Your task to perform on an android device: toggle show notifications on the lock screen Image 0: 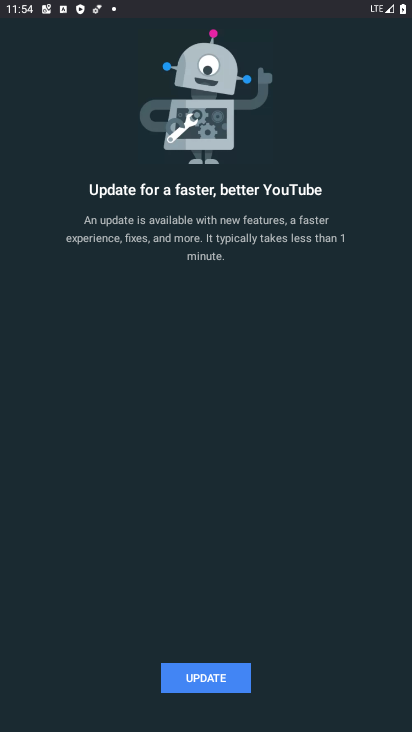
Step 0: press back button
Your task to perform on an android device: toggle show notifications on the lock screen Image 1: 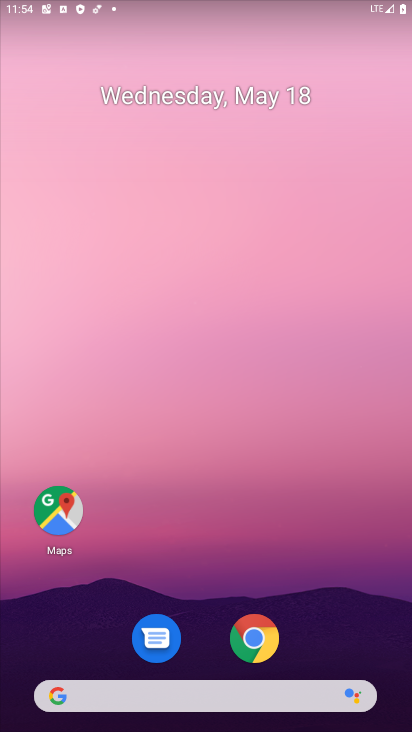
Step 1: drag from (368, 628) to (301, 55)
Your task to perform on an android device: toggle show notifications on the lock screen Image 2: 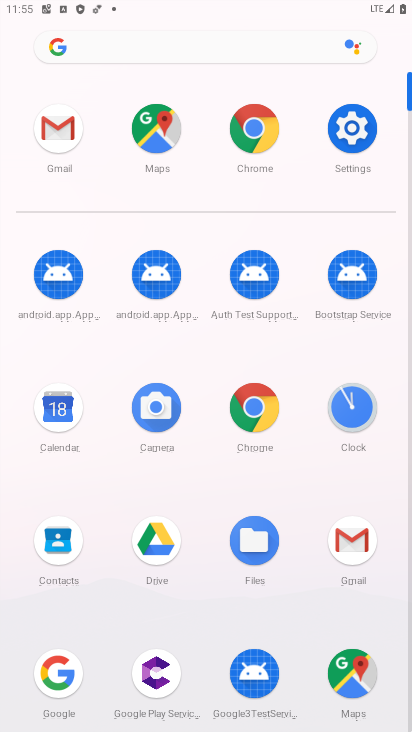
Step 2: click (357, 155)
Your task to perform on an android device: toggle show notifications on the lock screen Image 3: 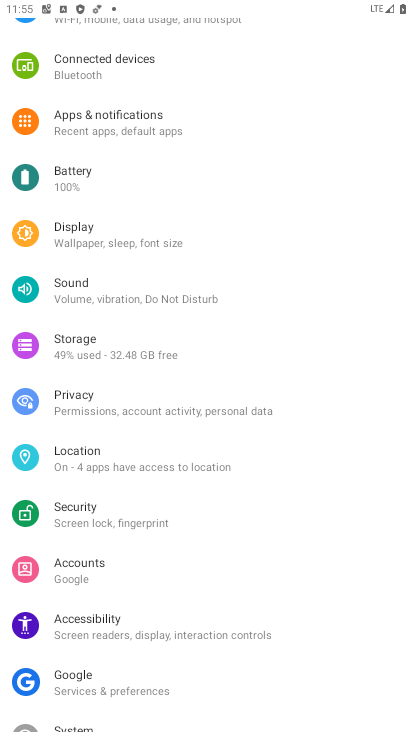
Step 3: click (148, 104)
Your task to perform on an android device: toggle show notifications on the lock screen Image 4: 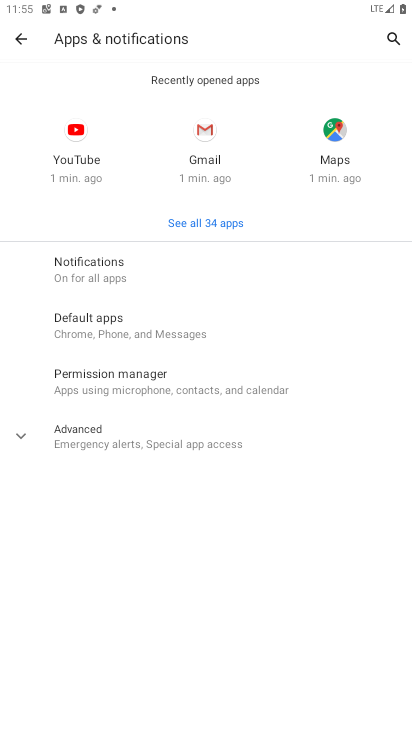
Step 4: click (109, 285)
Your task to perform on an android device: toggle show notifications on the lock screen Image 5: 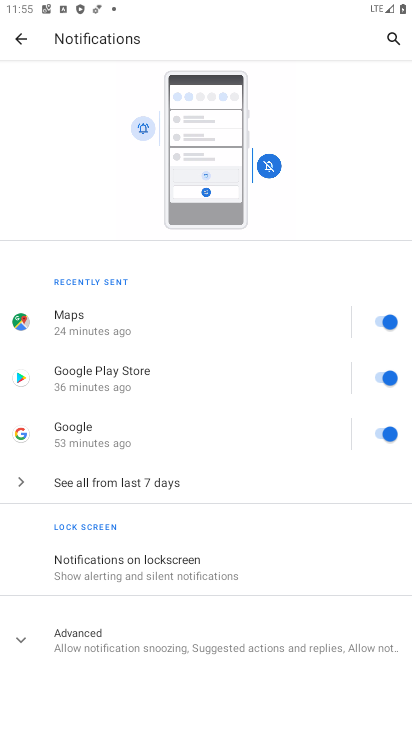
Step 5: click (171, 577)
Your task to perform on an android device: toggle show notifications on the lock screen Image 6: 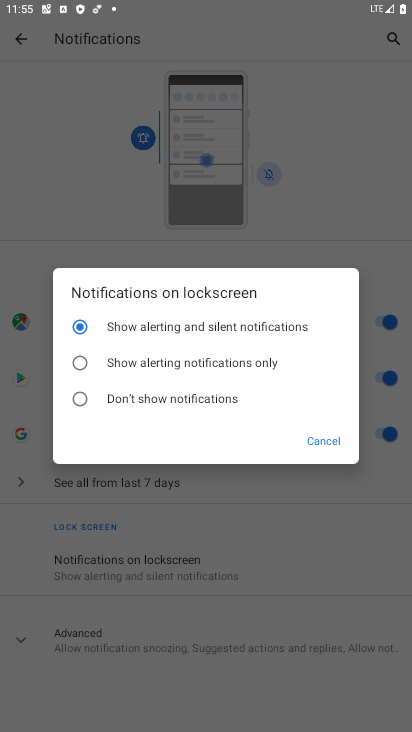
Step 6: click (205, 405)
Your task to perform on an android device: toggle show notifications on the lock screen Image 7: 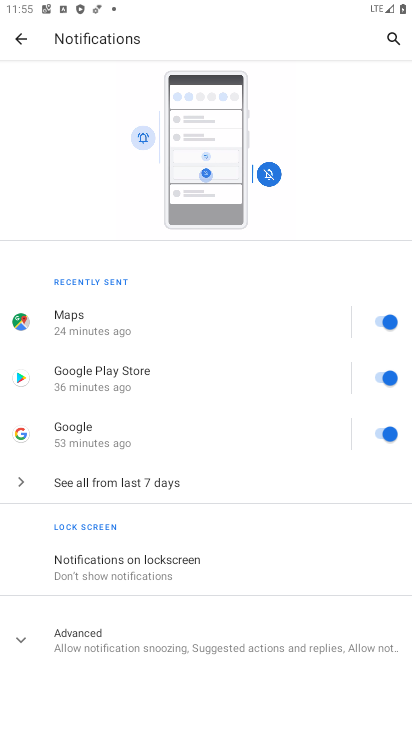
Step 7: task complete